Your task to perform on an android device: What's the weather going to be tomorrow? Image 0: 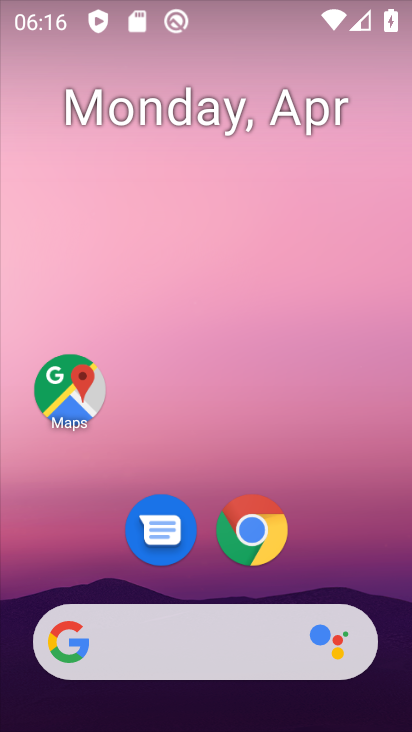
Step 0: click (198, 581)
Your task to perform on an android device: What's the weather going to be tomorrow? Image 1: 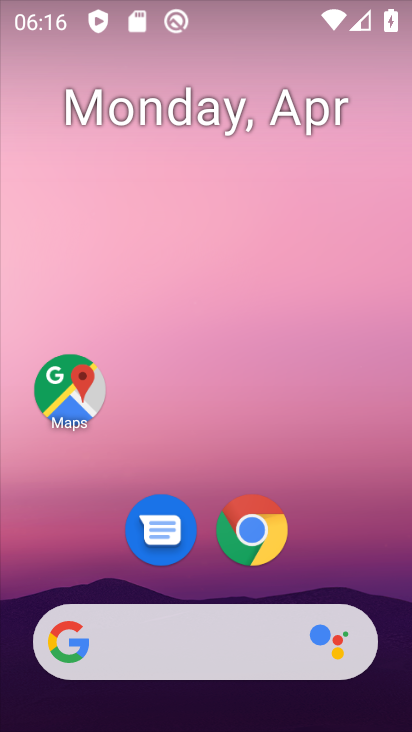
Step 1: click (203, 639)
Your task to perform on an android device: What's the weather going to be tomorrow? Image 2: 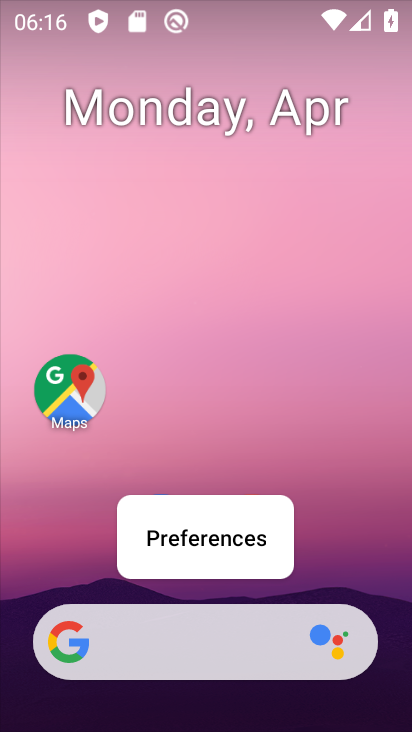
Step 2: click (121, 638)
Your task to perform on an android device: What's the weather going to be tomorrow? Image 3: 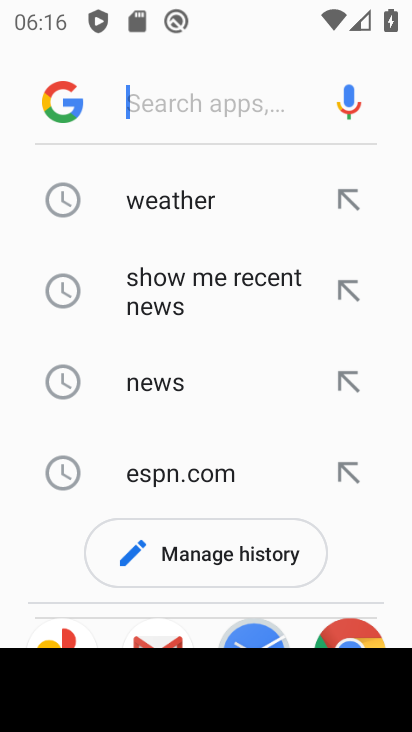
Step 3: click (188, 201)
Your task to perform on an android device: What's the weather going to be tomorrow? Image 4: 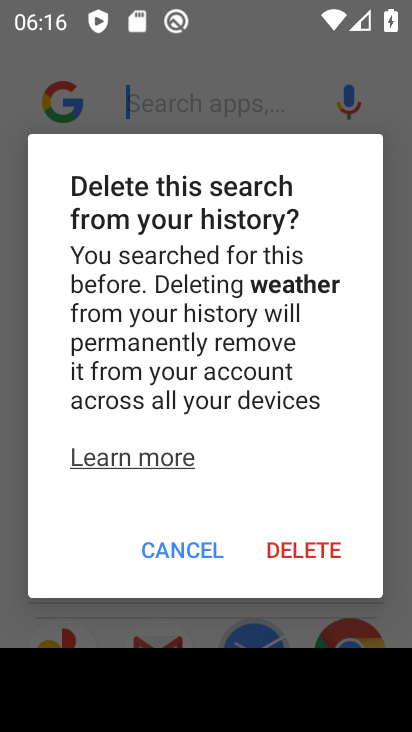
Step 4: click (201, 551)
Your task to perform on an android device: What's the weather going to be tomorrow? Image 5: 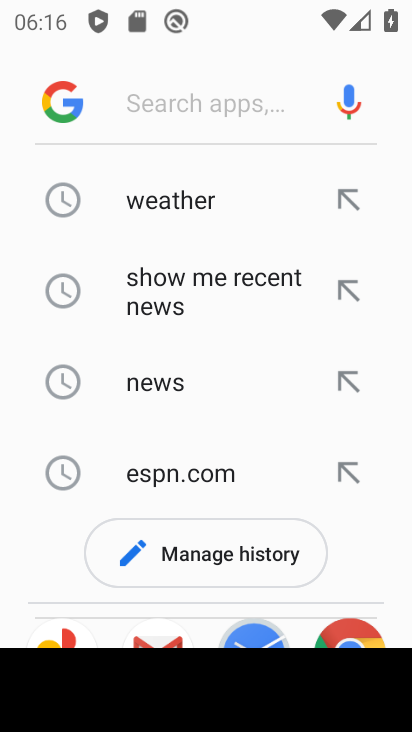
Step 5: click (175, 194)
Your task to perform on an android device: What's the weather going to be tomorrow? Image 6: 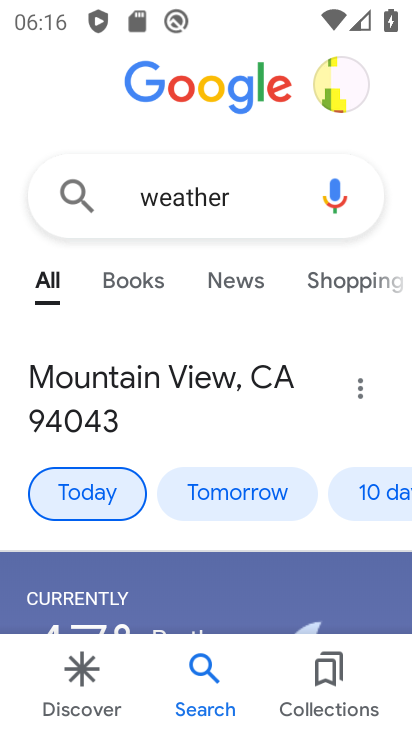
Step 6: click (238, 493)
Your task to perform on an android device: What's the weather going to be tomorrow? Image 7: 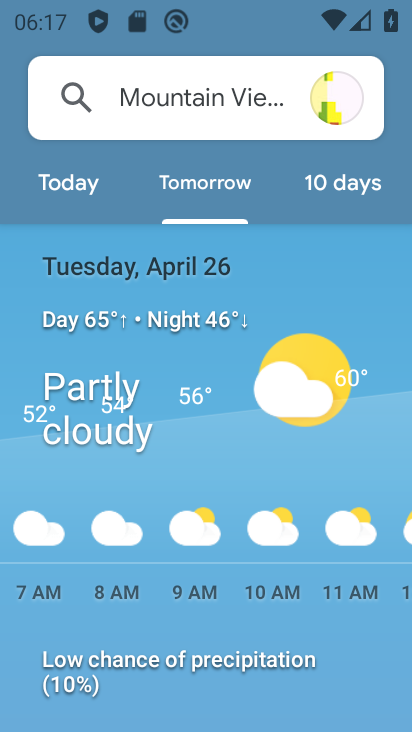
Step 7: task complete